Your task to perform on an android device: empty trash in the gmail app Image 0: 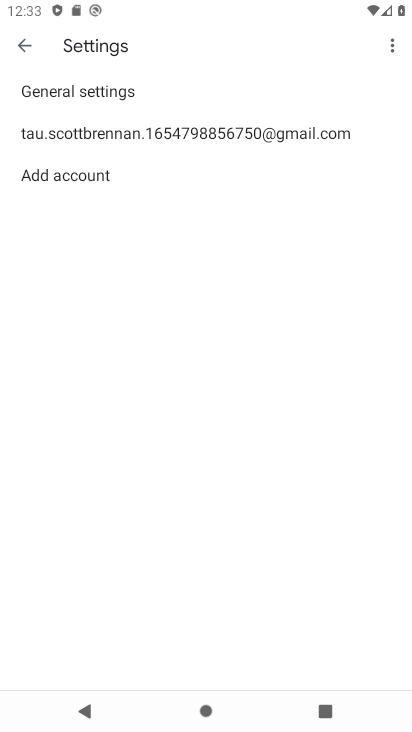
Step 0: press home button
Your task to perform on an android device: empty trash in the gmail app Image 1: 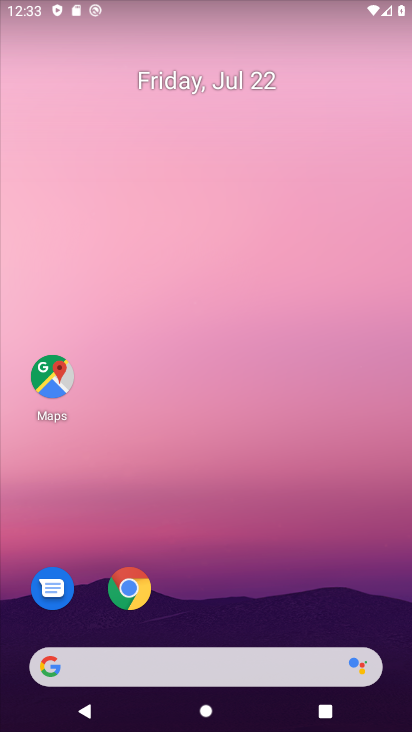
Step 1: drag from (187, 613) to (139, 39)
Your task to perform on an android device: empty trash in the gmail app Image 2: 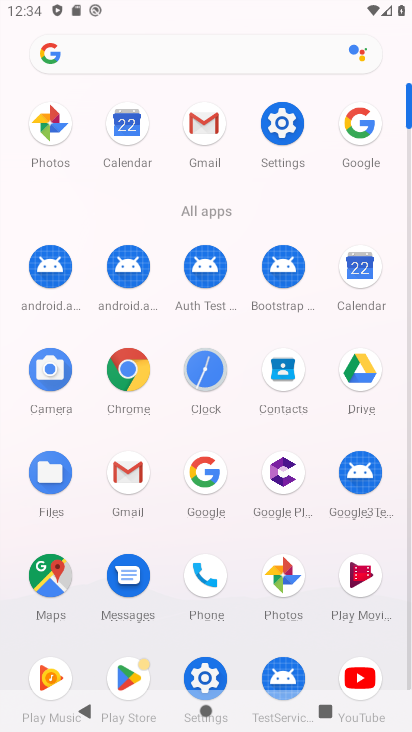
Step 2: click (199, 169)
Your task to perform on an android device: empty trash in the gmail app Image 3: 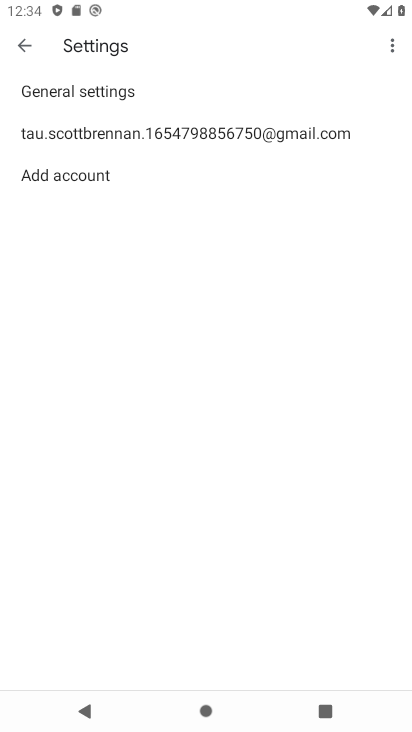
Step 3: click (25, 47)
Your task to perform on an android device: empty trash in the gmail app Image 4: 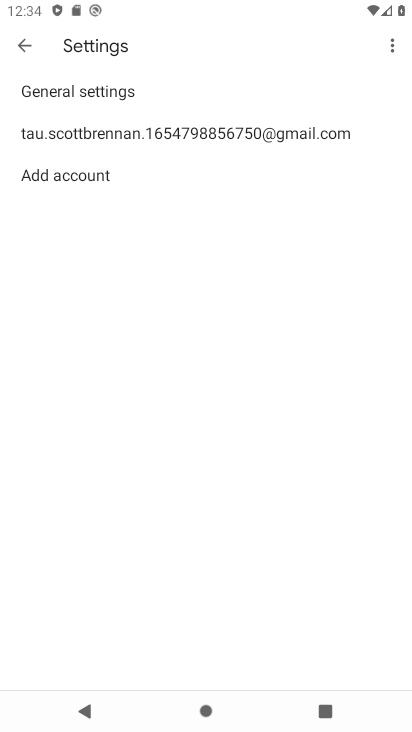
Step 4: click (25, 47)
Your task to perform on an android device: empty trash in the gmail app Image 5: 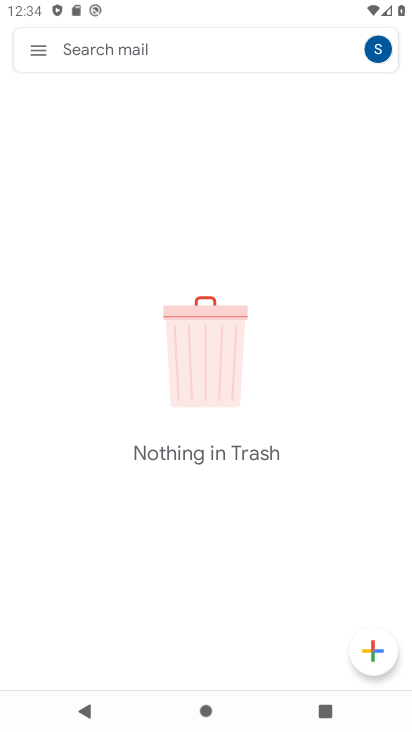
Step 5: click (25, 47)
Your task to perform on an android device: empty trash in the gmail app Image 6: 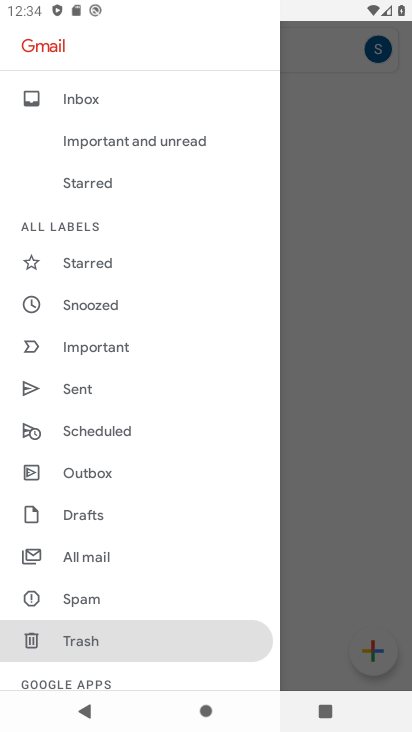
Step 6: click (92, 646)
Your task to perform on an android device: empty trash in the gmail app Image 7: 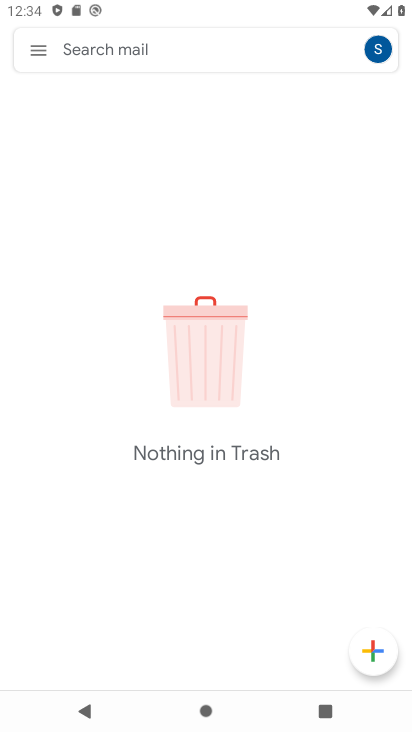
Step 7: click (23, 50)
Your task to perform on an android device: empty trash in the gmail app Image 8: 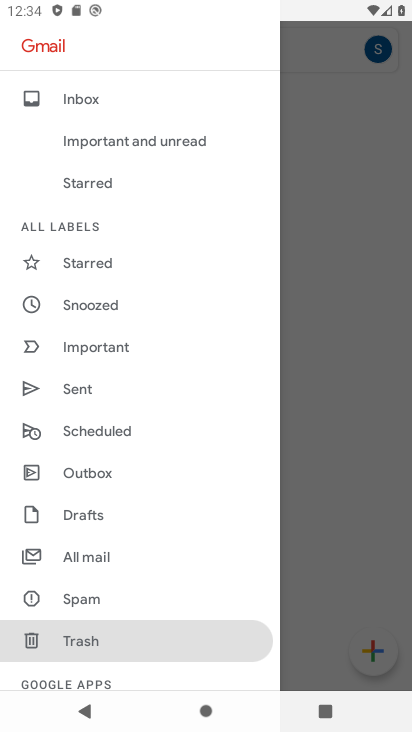
Step 8: click (90, 640)
Your task to perform on an android device: empty trash in the gmail app Image 9: 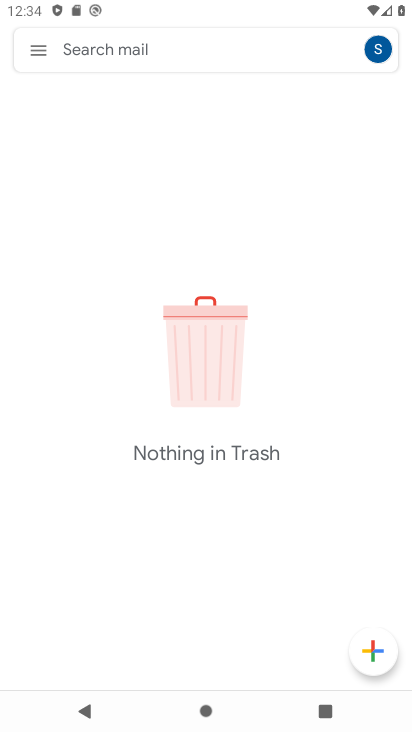
Step 9: task complete